Your task to perform on an android device: remove spam from my inbox in the gmail app Image 0: 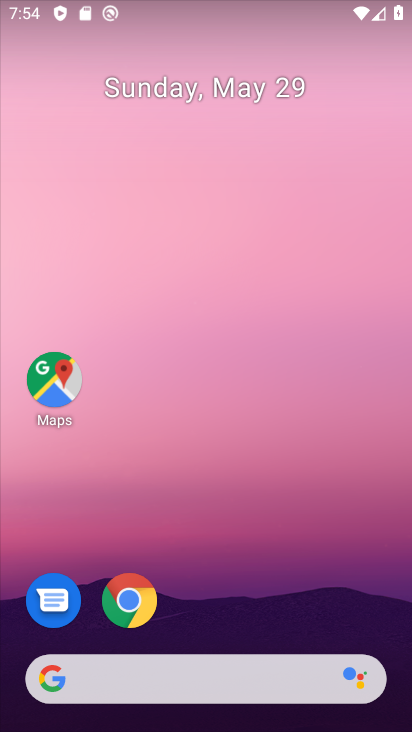
Step 0: drag from (269, 650) to (272, 276)
Your task to perform on an android device: remove spam from my inbox in the gmail app Image 1: 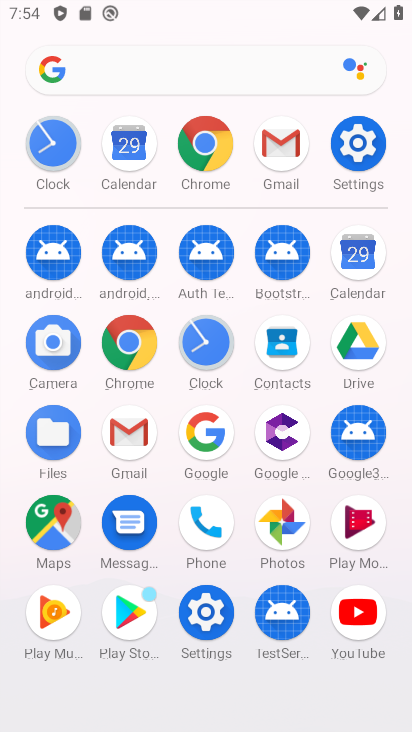
Step 1: click (283, 160)
Your task to perform on an android device: remove spam from my inbox in the gmail app Image 2: 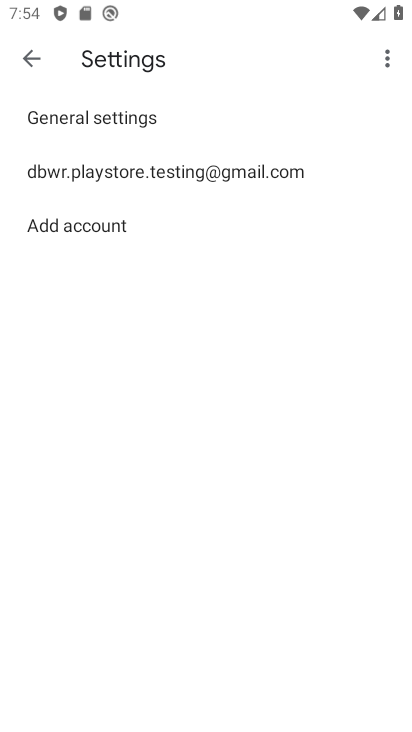
Step 2: click (35, 57)
Your task to perform on an android device: remove spam from my inbox in the gmail app Image 3: 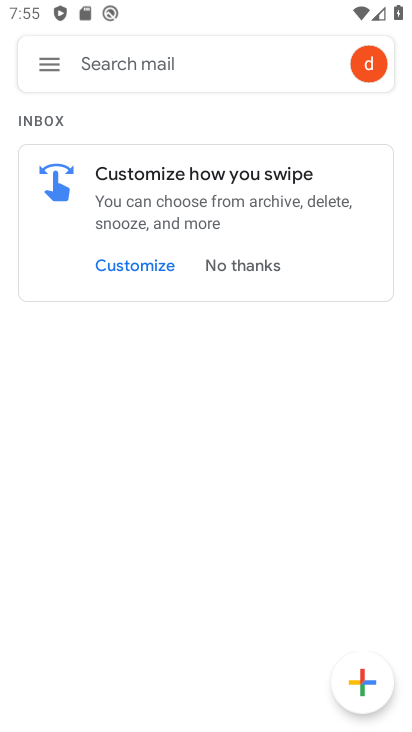
Step 3: click (55, 61)
Your task to perform on an android device: remove spam from my inbox in the gmail app Image 4: 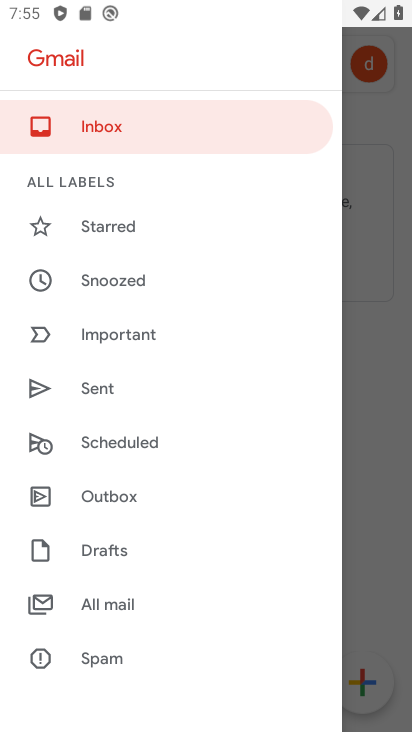
Step 4: click (132, 658)
Your task to perform on an android device: remove spam from my inbox in the gmail app Image 5: 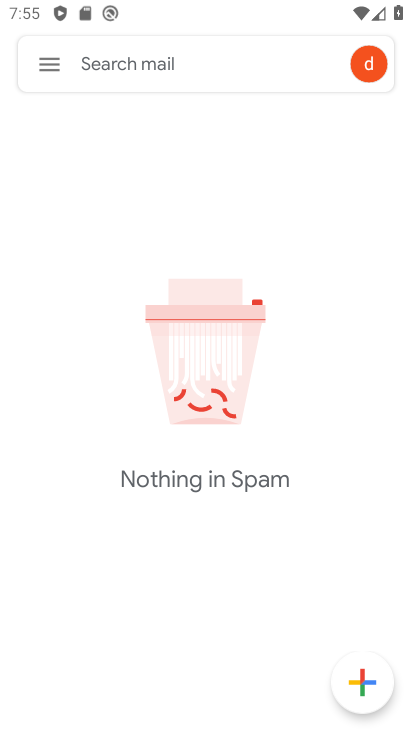
Step 5: task complete